Your task to perform on an android device: all mails in gmail Image 0: 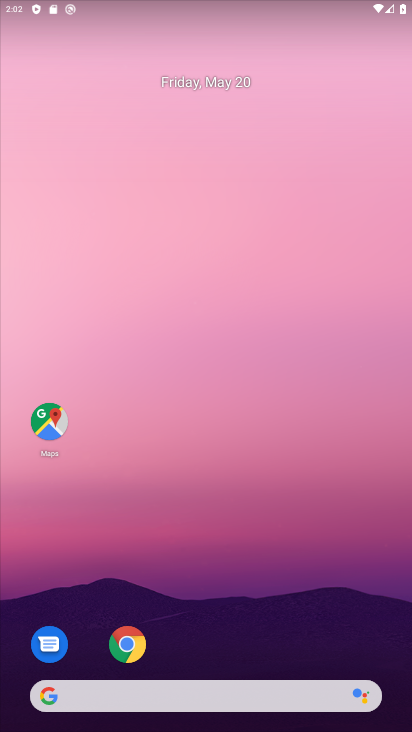
Step 0: drag from (194, 673) to (305, 201)
Your task to perform on an android device: all mails in gmail Image 1: 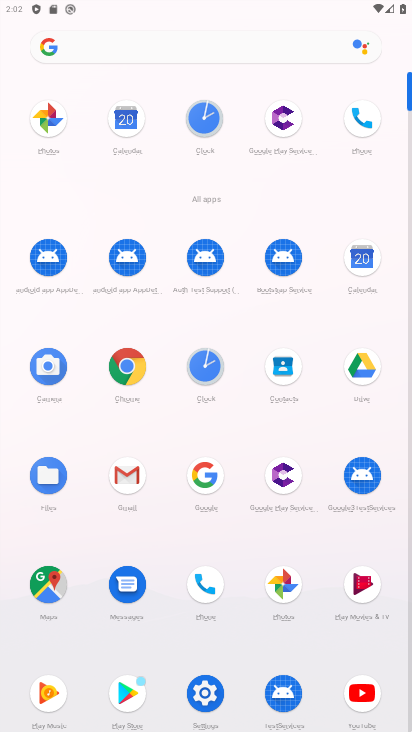
Step 1: click (126, 473)
Your task to perform on an android device: all mails in gmail Image 2: 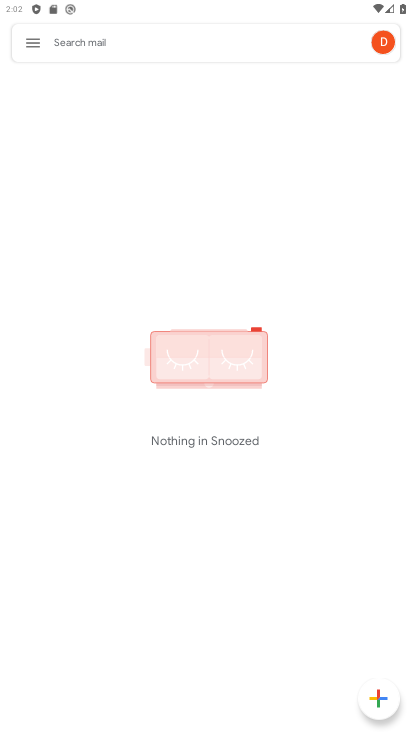
Step 2: click (33, 29)
Your task to perform on an android device: all mails in gmail Image 3: 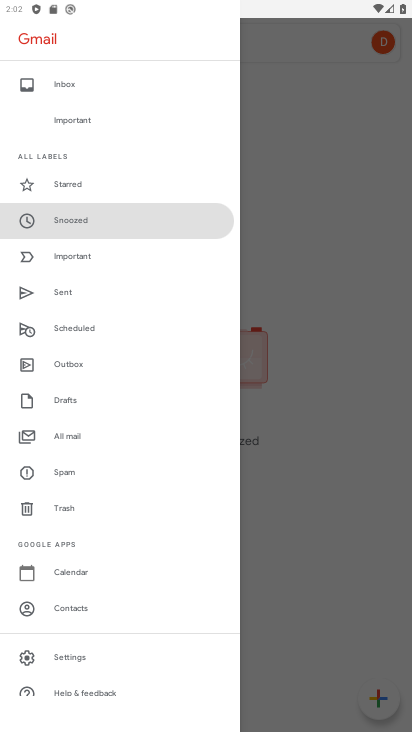
Step 3: click (83, 437)
Your task to perform on an android device: all mails in gmail Image 4: 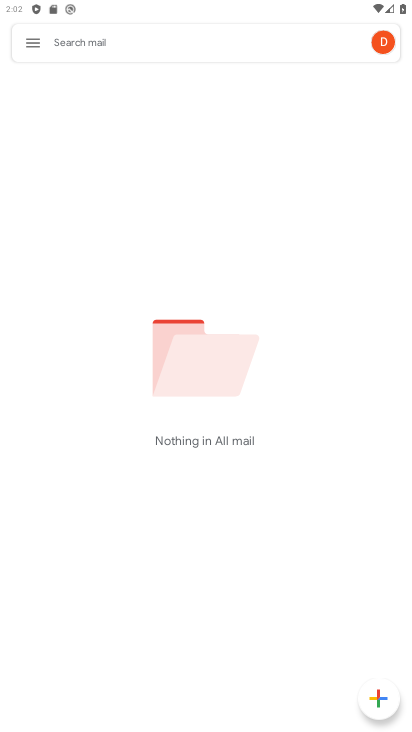
Step 4: task complete